Your task to perform on an android device: Go to sound settings Image 0: 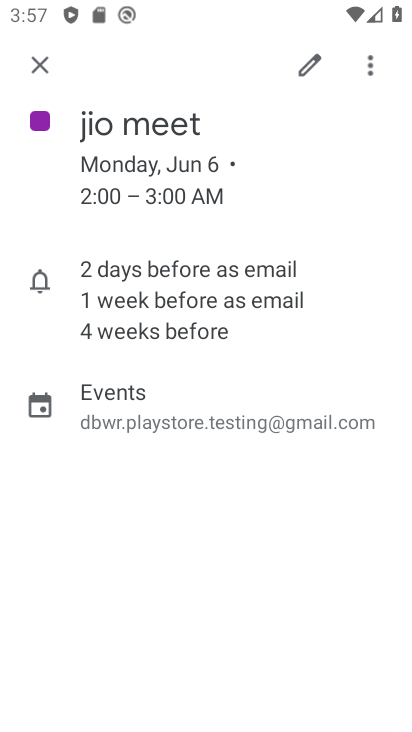
Step 0: press home button
Your task to perform on an android device: Go to sound settings Image 1: 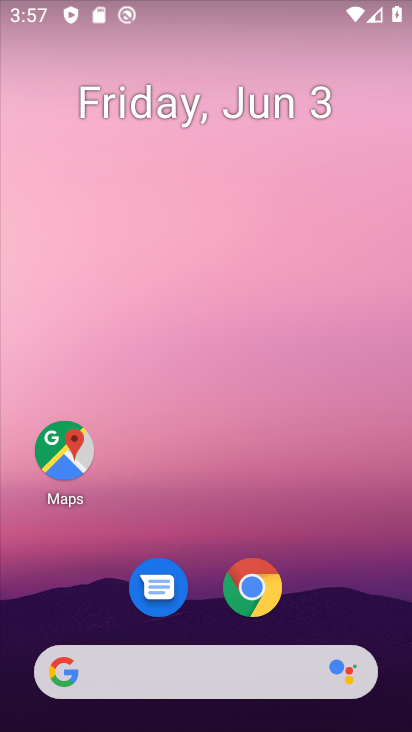
Step 1: drag from (388, 507) to (383, 62)
Your task to perform on an android device: Go to sound settings Image 2: 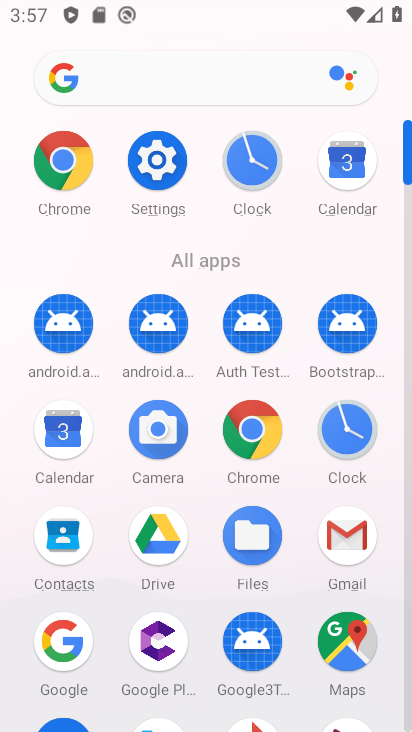
Step 2: click (137, 161)
Your task to perform on an android device: Go to sound settings Image 3: 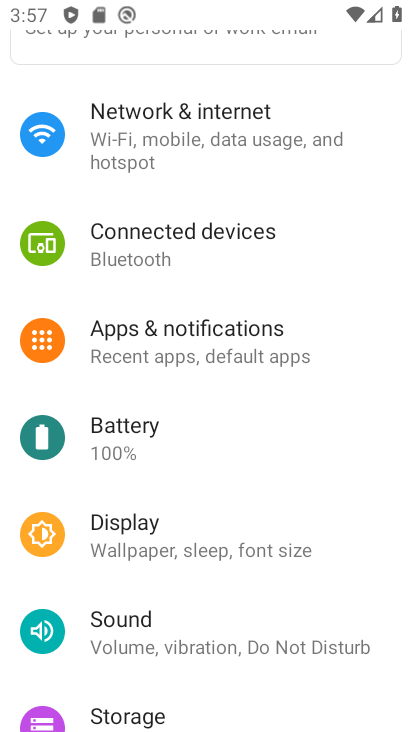
Step 3: click (177, 621)
Your task to perform on an android device: Go to sound settings Image 4: 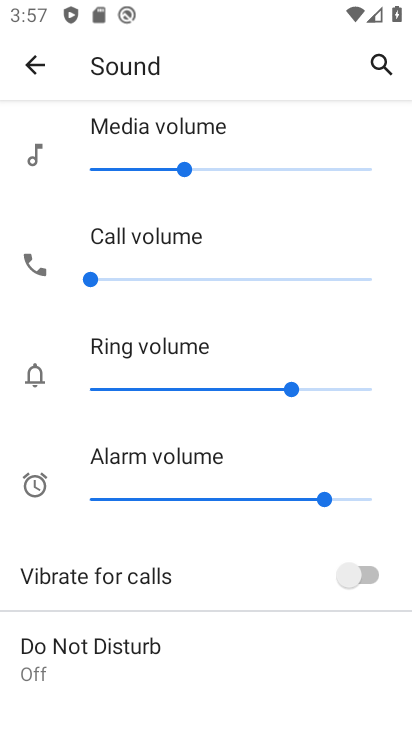
Step 4: task complete